Your task to perform on an android device: snooze an email in the gmail app Image 0: 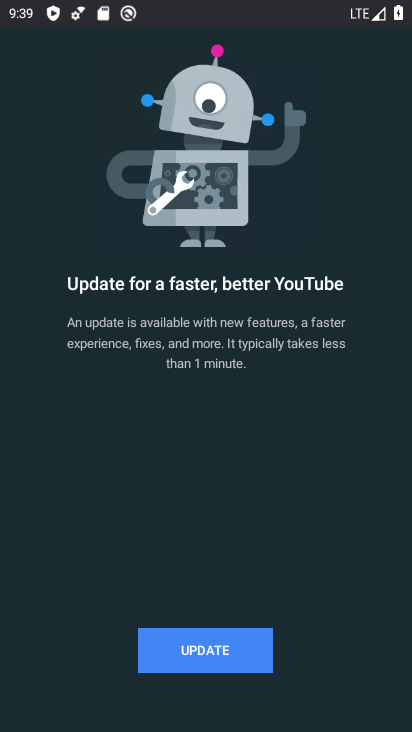
Step 0: press home button
Your task to perform on an android device: snooze an email in the gmail app Image 1: 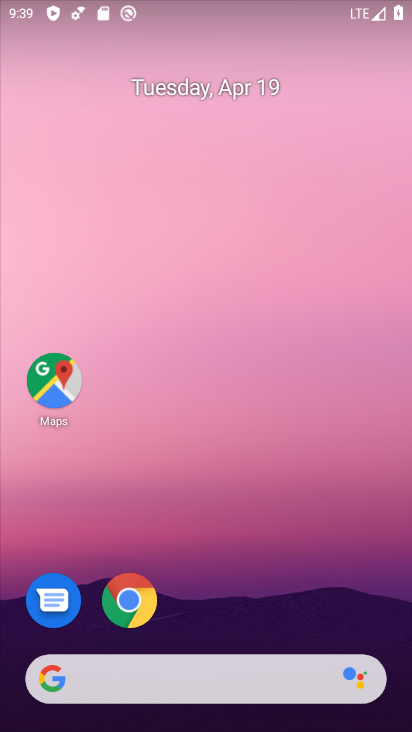
Step 1: drag from (286, 612) to (234, 120)
Your task to perform on an android device: snooze an email in the gmail app Image 2: 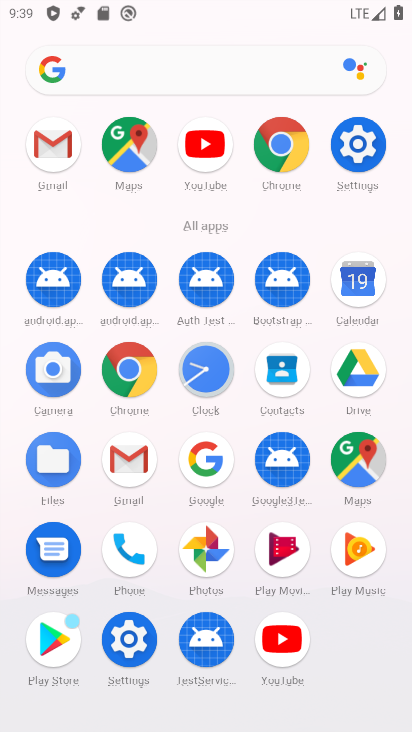
Step 2: click (41, 158)
Your task to perform on an android device: snooze an email in the gmail app Image 3: 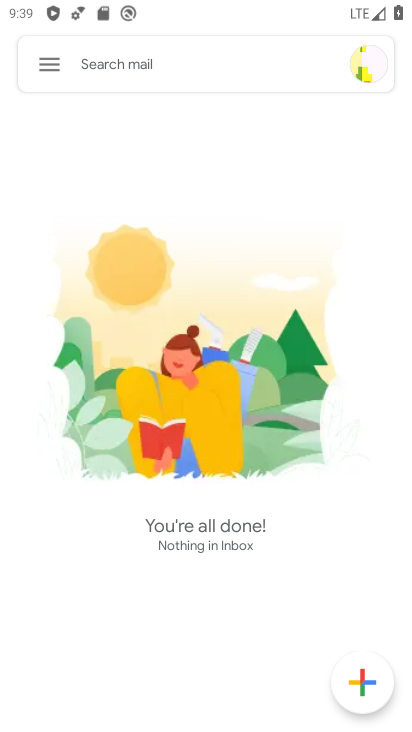
Step 3: click (50, 62)
Your task to perform on an android device: snooze an email in the gmail app Image 4: 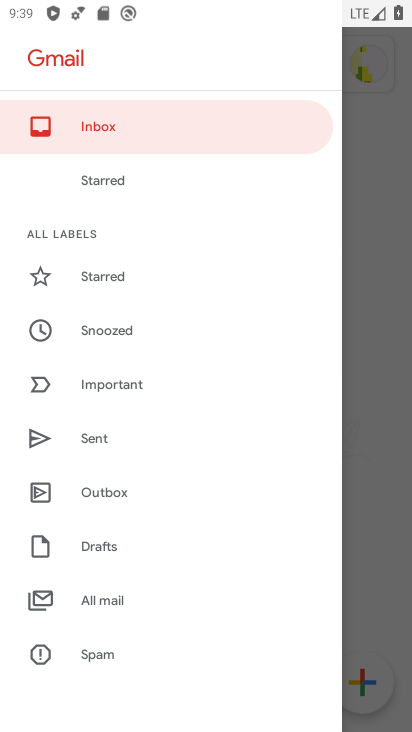
Step 4: click (157, 608)
Your task to perform on an android device: snooze an email in the gmail app Image 5: 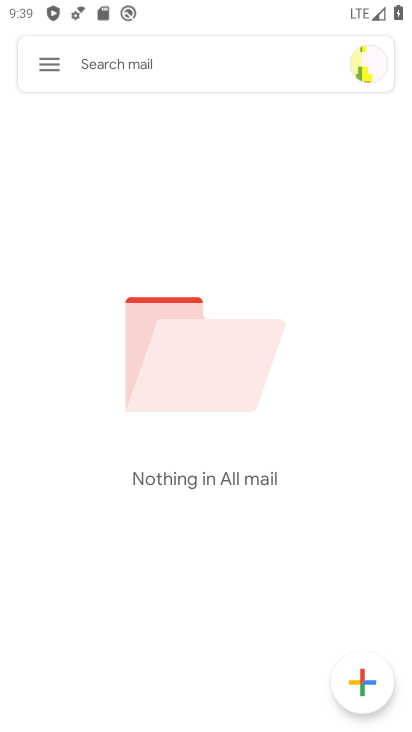
Step 5: task complete